Your task to perform on an android device: What's the weather going to be this weekend? Image 0: 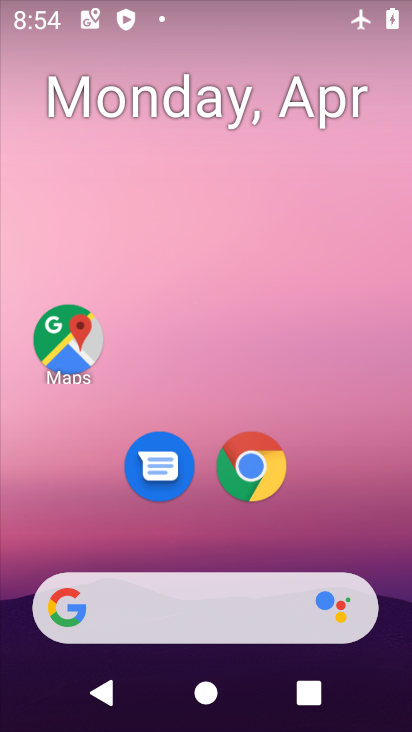
Step 0: press home button
Your task to perform on an android device: What's the weather going to be this weekend? Image 1: 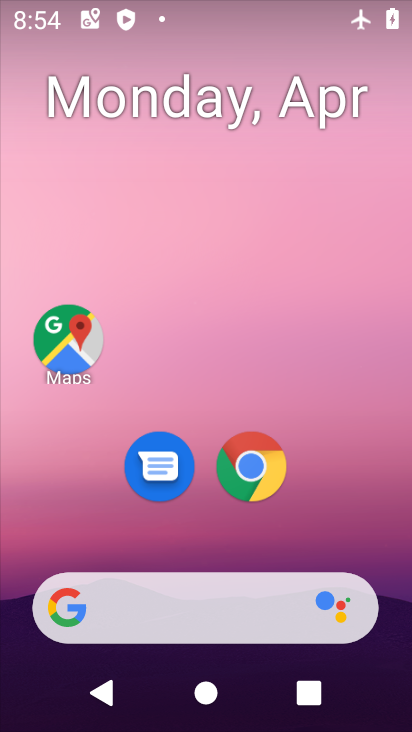
Step 1: drag from (184, 535) to (229, 115)
Your task to perform on an android device: What's the weather going to be this weekend? Image 2: 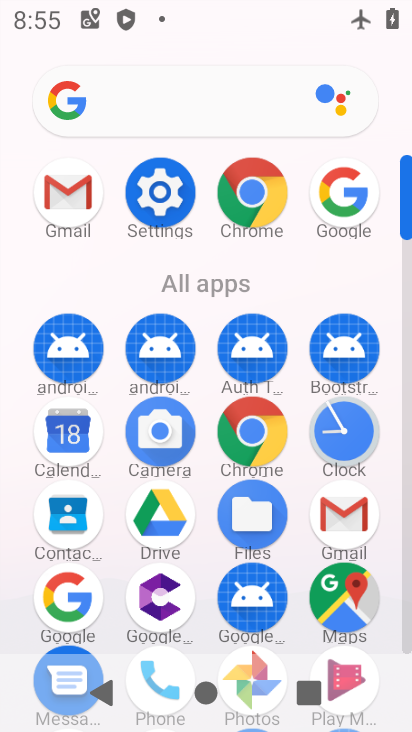
Step 2: click (339, 199)
Your task to perform on an android device: What's the weather going to be this weekend? Image 3: 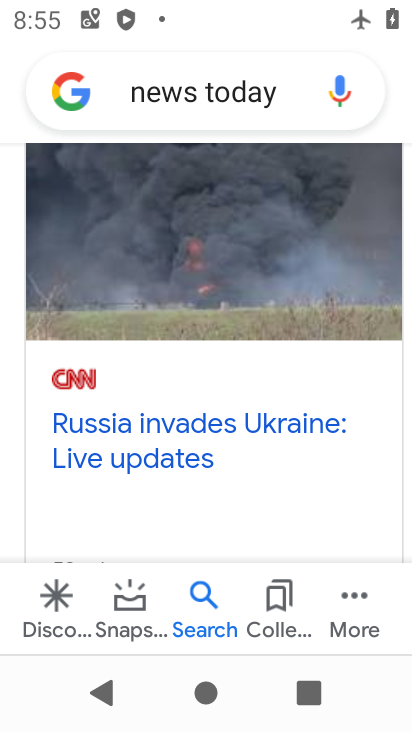
Step 3: click (277, 365)
Your task to perform on an android device: What's the weather going to be this weekend? Image 4: 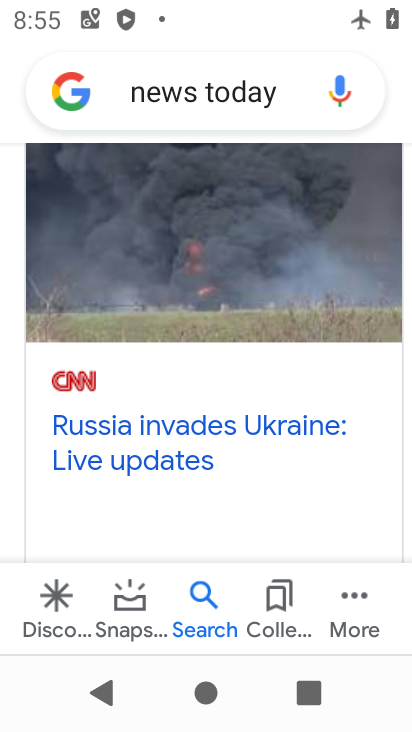
Step 4: click (278, 98)
Your task to perform on an android device: What's the weather going to be this weekend? Image 5: 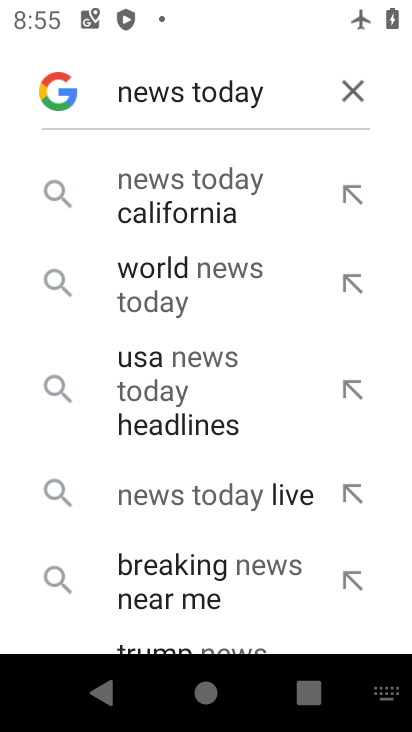
Step 5: click (348, 92)
Your task to perform on an android device: What's the weather going to be this weekend? Image 6: 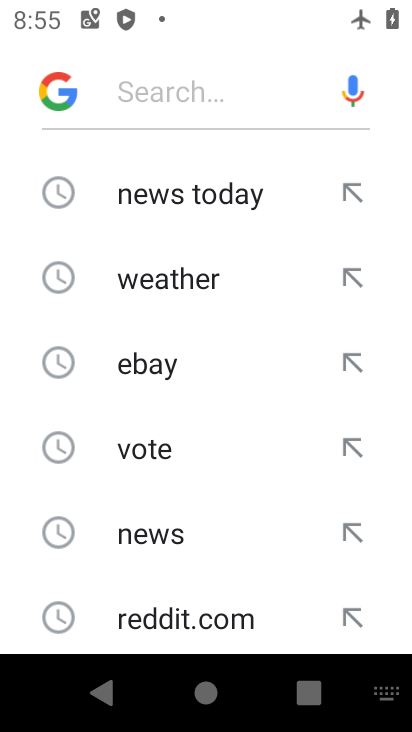
Step 6: click (181, 277)
Your task to perform on an android device: What's the weather going to be this weekend? Image 7: 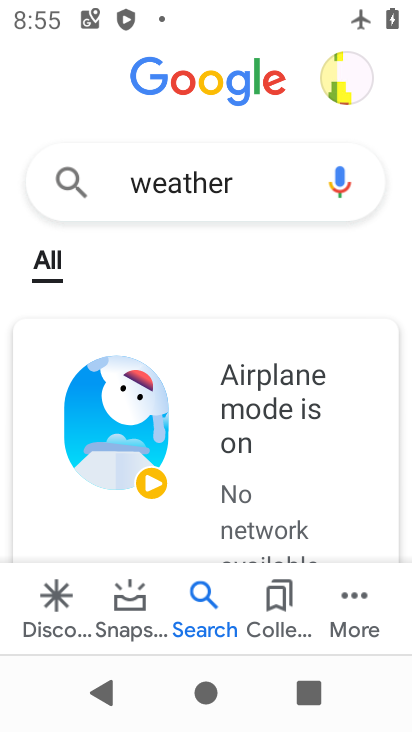
Step 7: task complete